Your task to perform on an android device: Go to wifi settings Image 0: 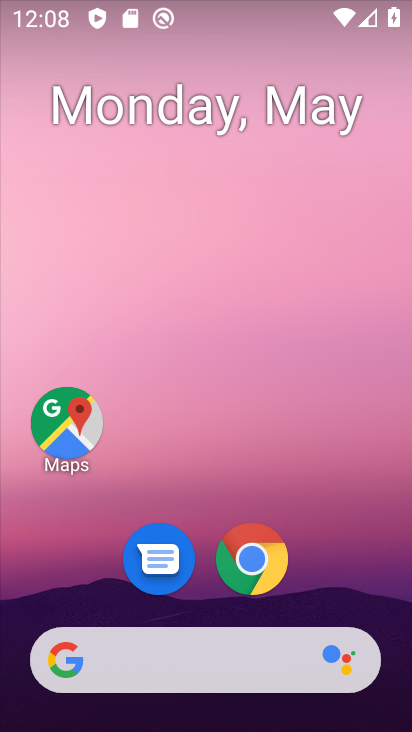
Step 0: drag from (322, 516) to (269, 36)
Your task to perform on an android device: Go to wifi settings Image 1: 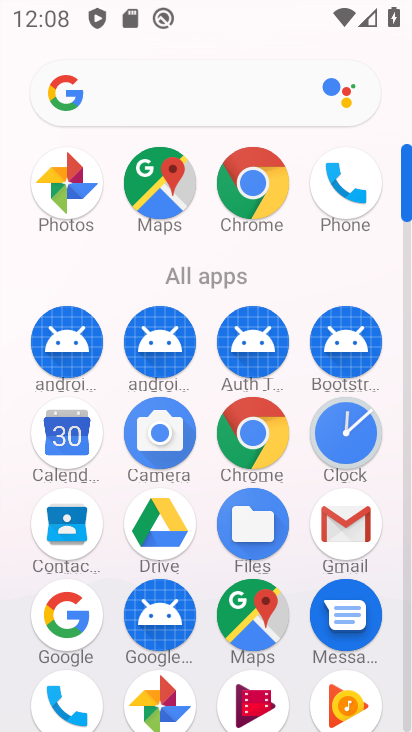
Step 1: drag from (16, 573) to (18, 228)
Your task to perform on an android device: Go to wifi settings Image 2: 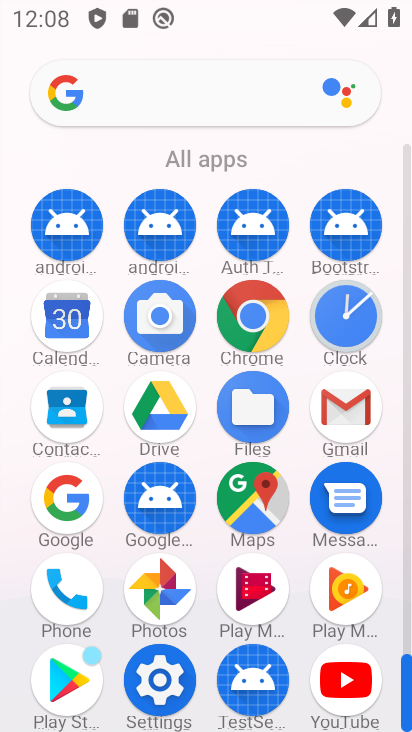
Step 2: click (161, 672)
Your task to perform on an android device: Go to wifi settings Image 3: 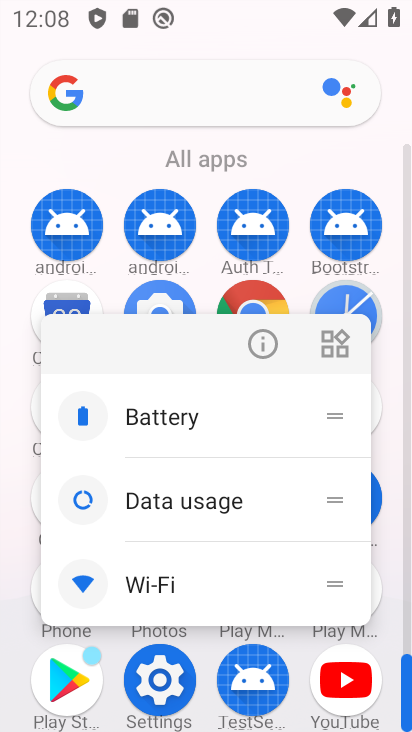
Step 3: click (160, 672)
Your task to perform on an android device: Go to wifi settings Image 4: 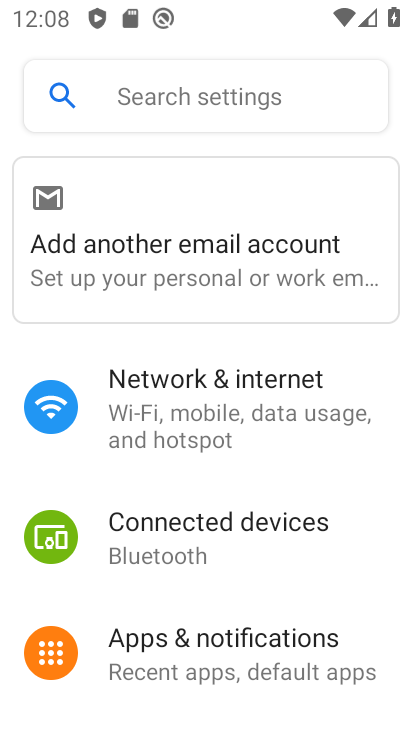
Step 4: drag from (326, 576) to (326, 327)
Your task to perform on an android device: Go to wifi settings Image 5: 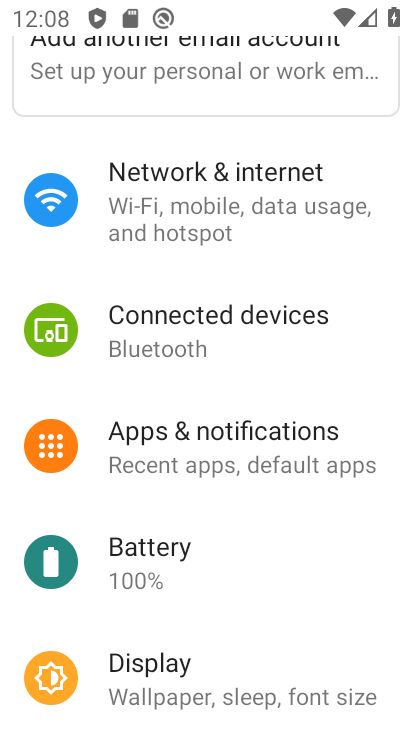
Step 5: click (212, 175)
Your task to perform on an android device: Go to wifi settings Image 6: 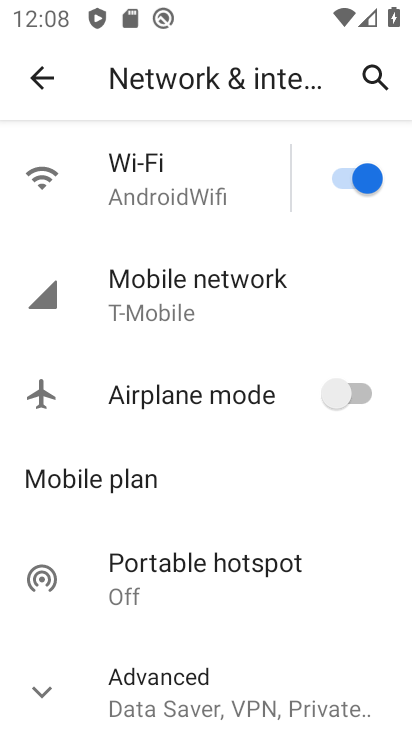
Step 6: drag from (243, 612) to (260, 192)
Your task to perform on an android device: Go to wifi settings Image 7: 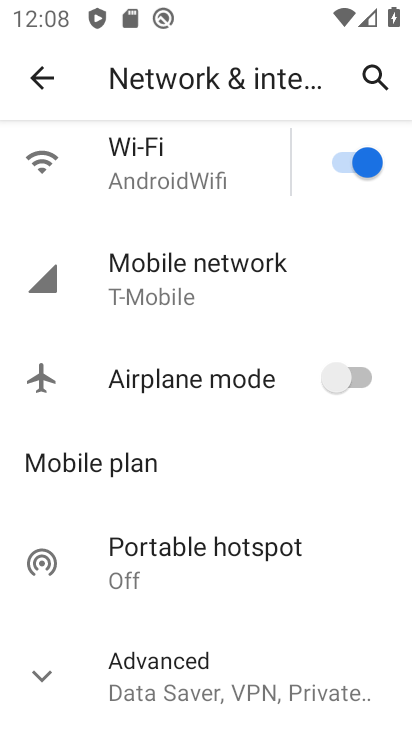
Step 7: click (43, 684)
Your task to perform on an android device: Go to wifi settings Image 8: 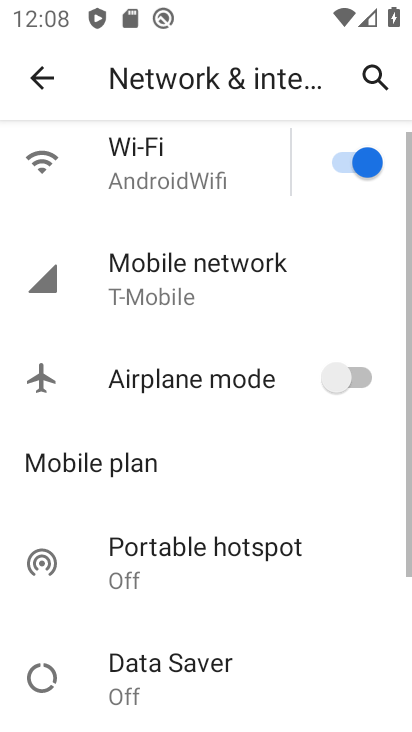
Step 8: drag from (258, 554) to (249, 93)
Your task to perform on an android device: Go to wifi settings Image 9: 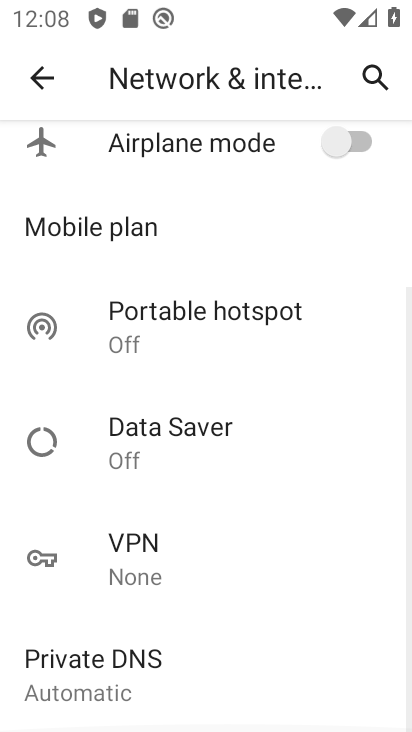
Step 9: drag from (200, 560) to (223, 137)
Your task to perform on an android device: Go to wifi settings Image 10: 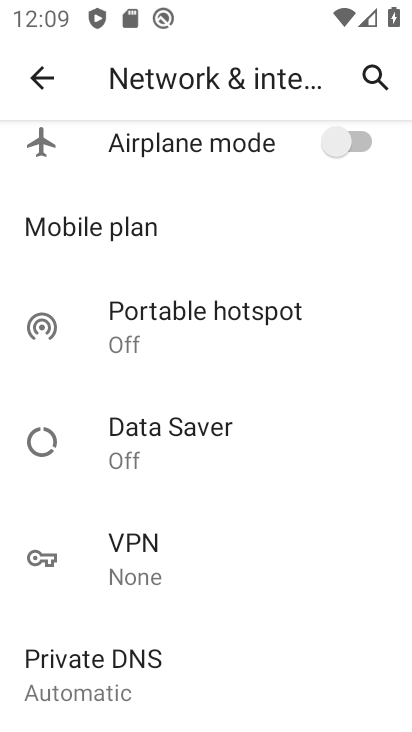
Step 10: drag from (224, 136) to (234, 611)
Your task to perform on an android device: Go to wifi settings Image 11: 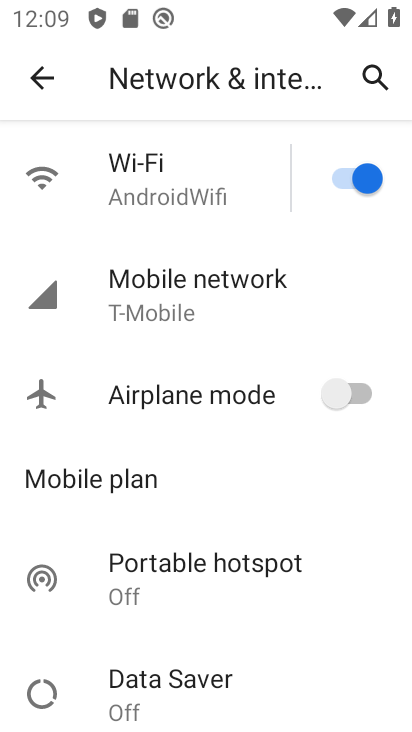
Step 11: drag from (236, 445) to (234, 162)
Your task to perform on an android device: Go to wifi settings Image 12: 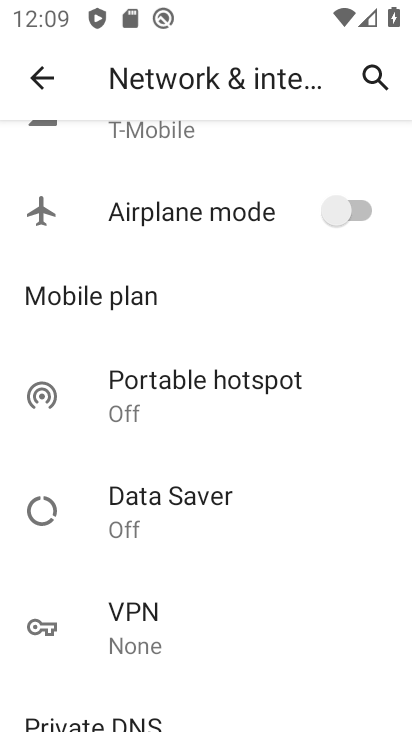
Step 12: drag from (244, 366) to (240, 144)
Your task to perform on an android device: Go to wifi settings Image 13: 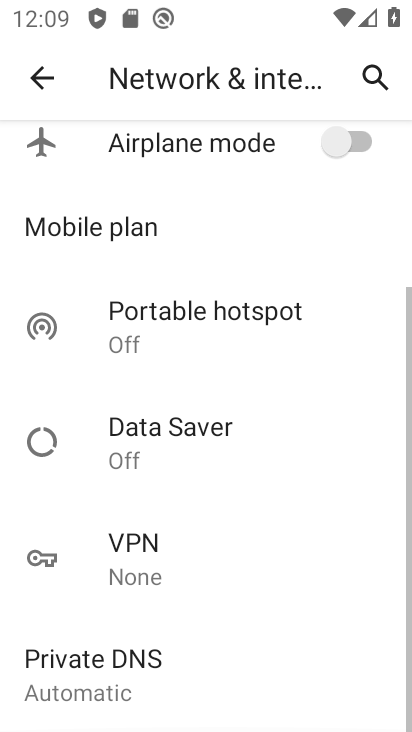
Step 13: drag from (246, 204) to (224, 618)
Your task to perform on an android device: Go to wifi settings Image 14: 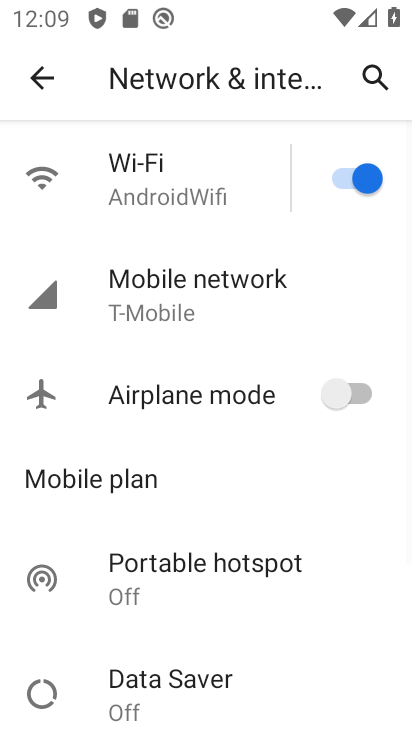
Step 14: drag from (226, 234) to (226, 534)
Your task to perform on an android device: Go to wifi settings Image 15: 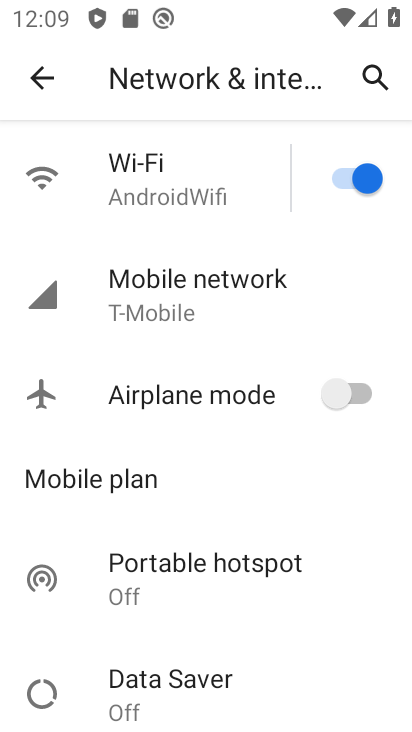
Step 15: click (142, 132)
Your task to perform on an android device: Go to wifi settings Image 16: 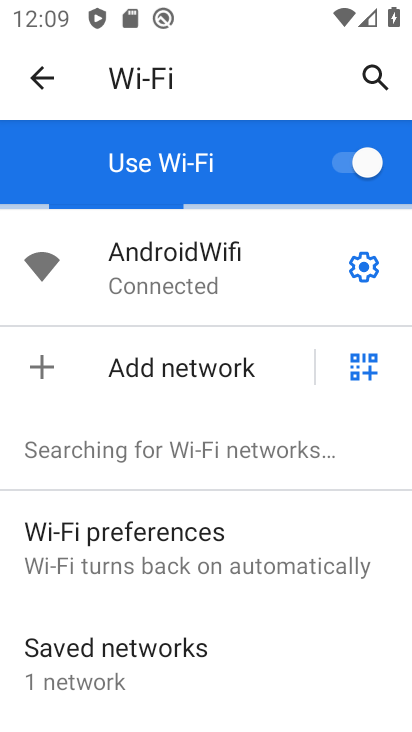
Step 16: task complete